Your task to perform on an android device: visit the assistant section in the google photos Image 0: 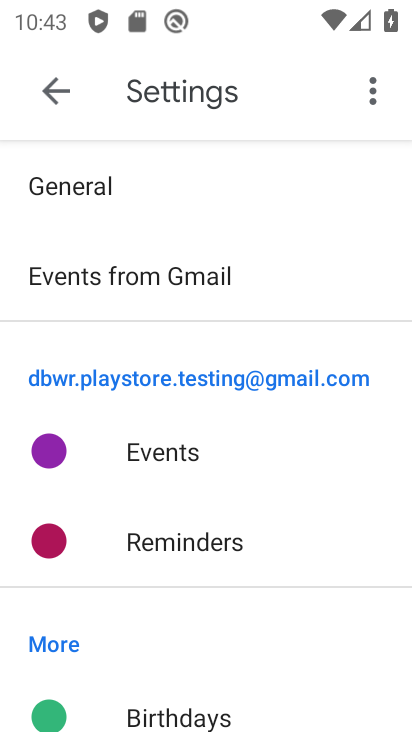
Step 0: press home button
Your task to perform on an android device: visit the assistant section in the google photos Image 1: 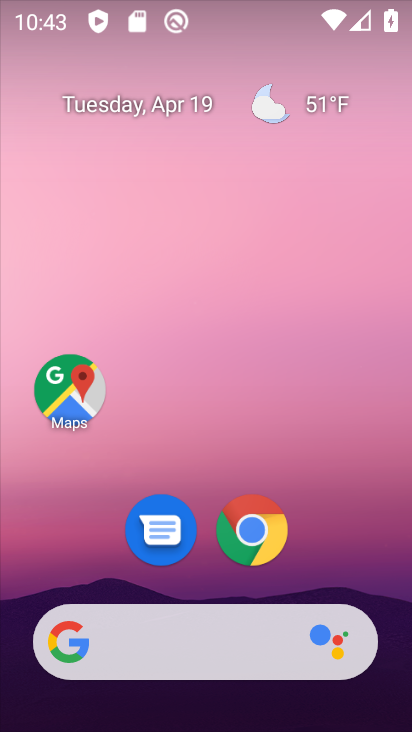
Step 1: drag from (322, 488) to (340, 76)
Your task to perform on an android device: visit the assistant section in the google photos Image 2: 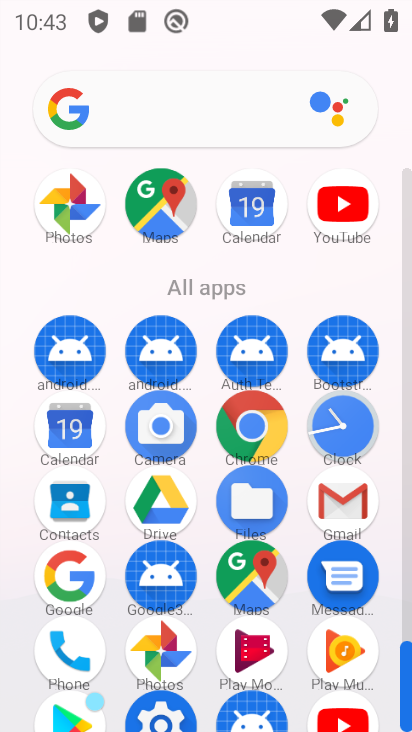
Step 2: click (72, 210)
Your task to perform on an android device: visit the assistant section in the google photos Image 3: 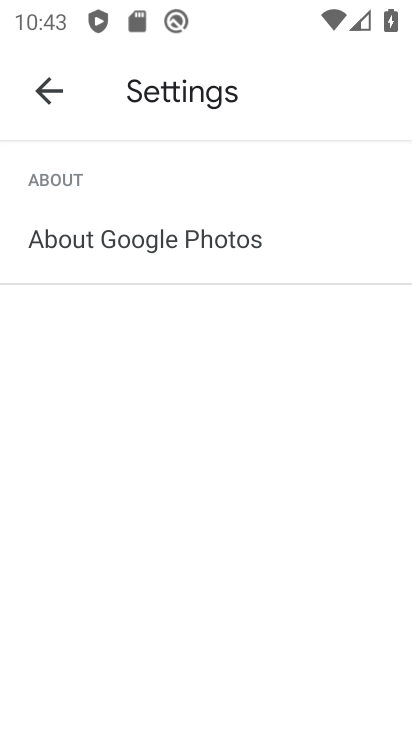
Step 3: click (51, 87)
Your task to perform on an android device: visit the assistant section in the google photos Image 4: 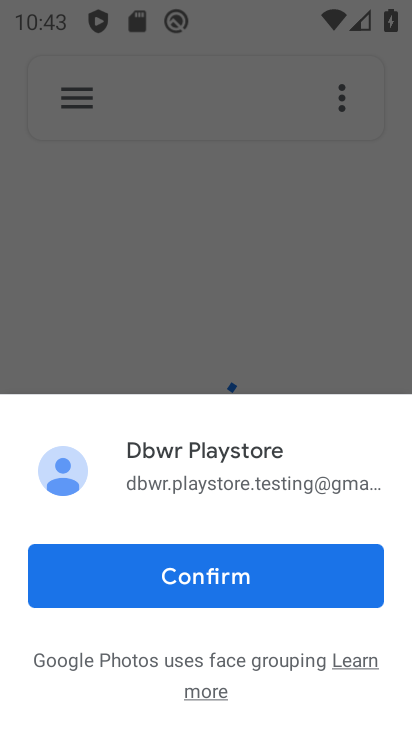
Step 4: click (251, 573)
Your task to perform on an android device: visit the assistant section in the google photos Image 5: 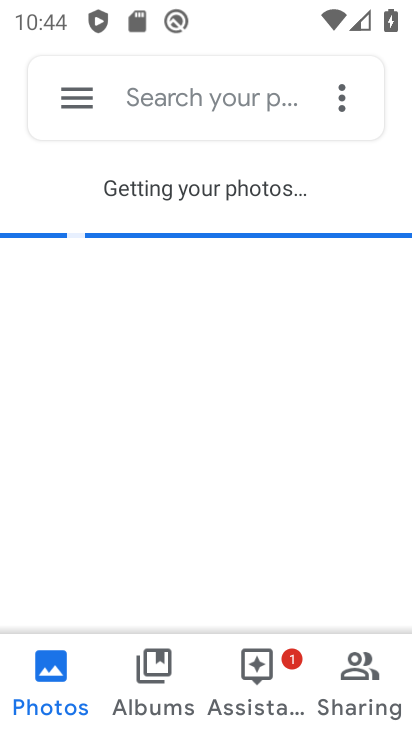
Step 5: click (248, 674)
Your task to perform on an android device: visit the assistant section in the google photos Image 6: 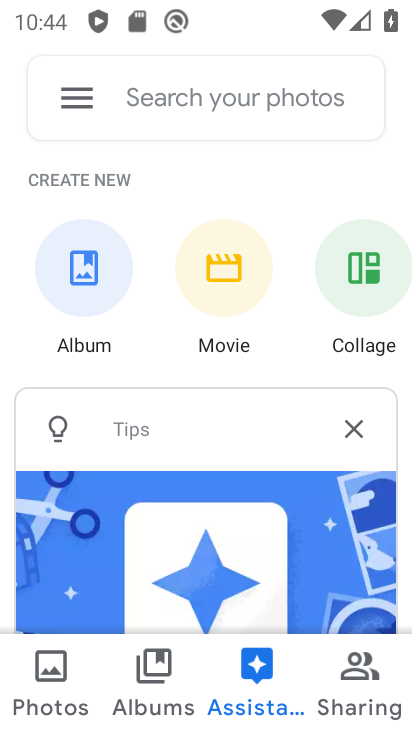
Step 6: task complete